Your task to perform on an android device: open chrome privacy settings Image 0: 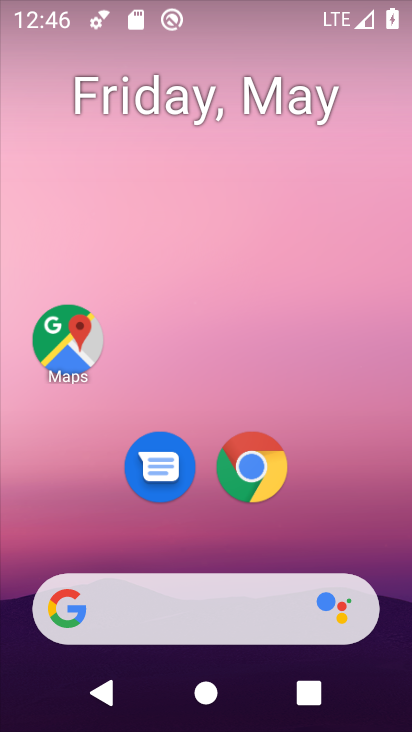
Step 0: drag from (367, 532) to (357, 104)
Your task to perform on an android device: open chrome privacy settings Image 1: 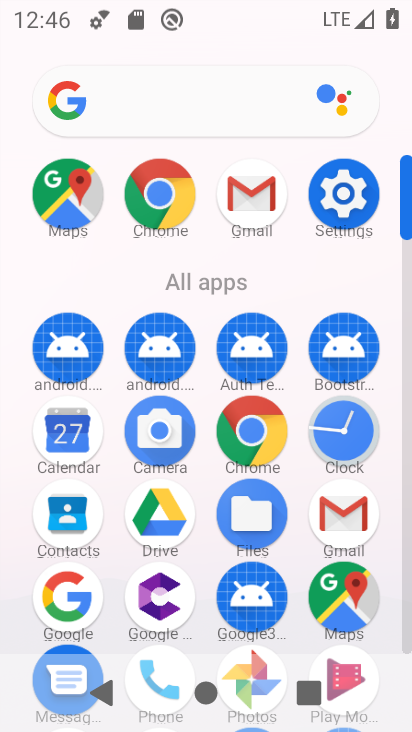
Step 1: click (347, 185)
Your task to perform on an android device: open chrome privacy settings Image 2: 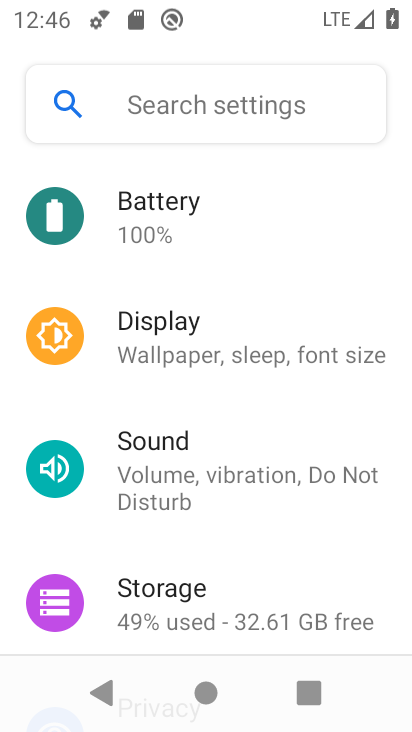
Step 2: drag from (237, 602) to (285, 224)
Your task to perform on an android device: open chrome privacy settings Image 3: 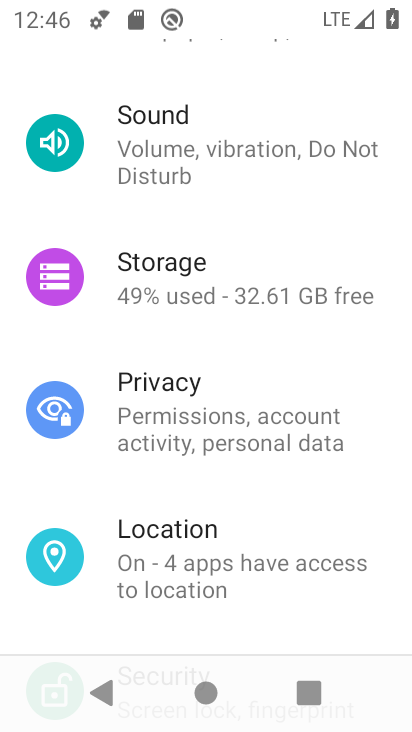
Step 3: click (208, 413)
Your task to perform on an android device: open chrome privacy settings Image 4: 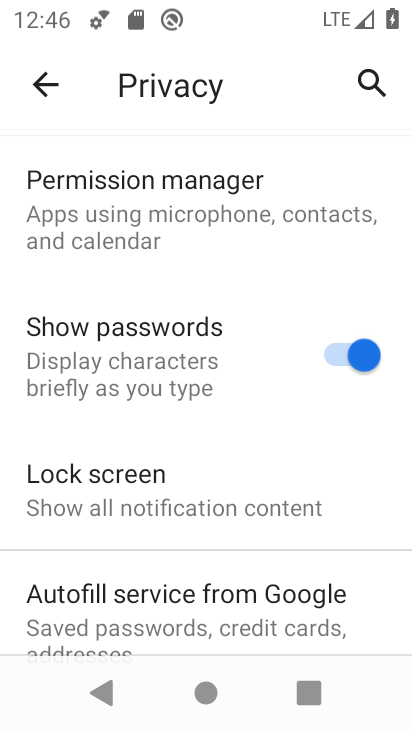
Step 4: task complete